Your task to perform on an android device: turn off wifi Image 0: 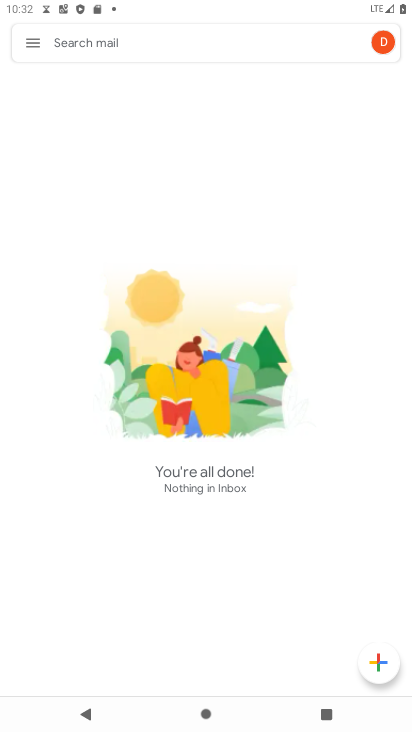
Step 0: press home button
Your task to perform on an android device: turn off wifi Image 1: 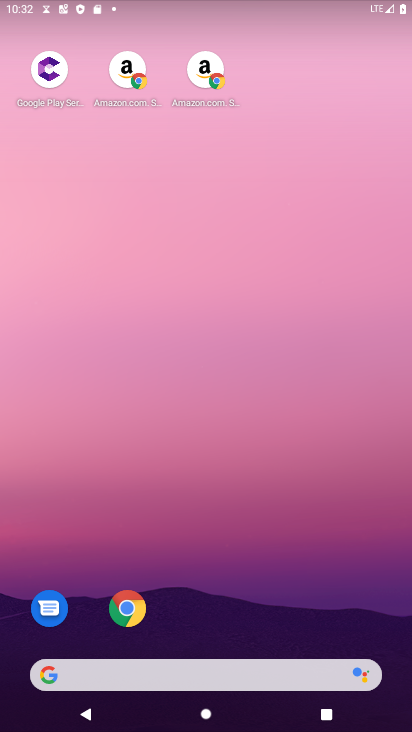
Step 1: drag from (215, 532) to (193, 12)
Your task to perform on an android device: turn off wifi Image 2: 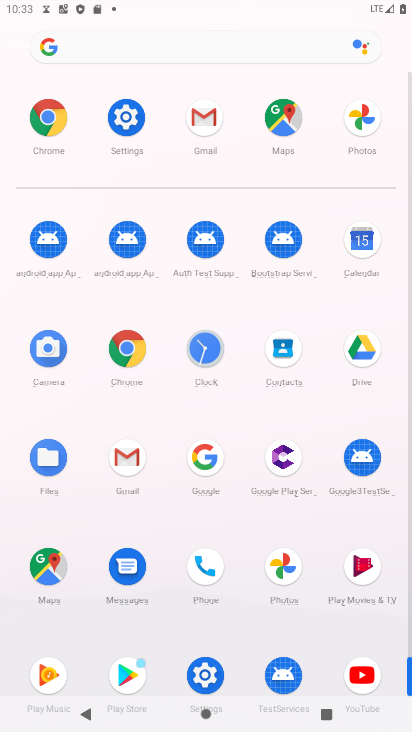
Step 2: click (122, 248)
Your task to perform on an android device: turn off wifi Image 3: 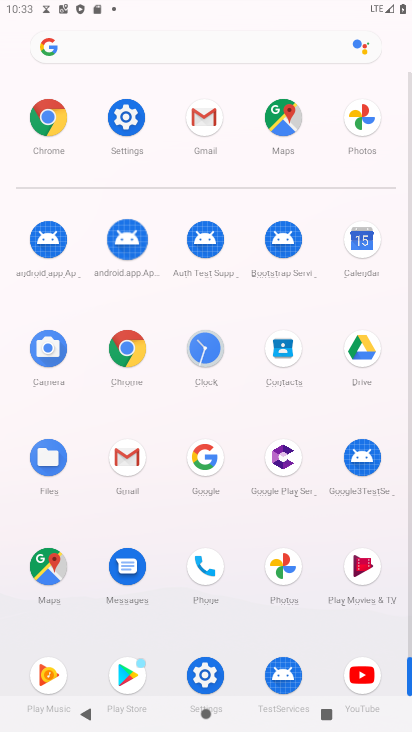
Step 3: click (126, 127)
Your task to perform on an android device: turn off wifi Image 4: 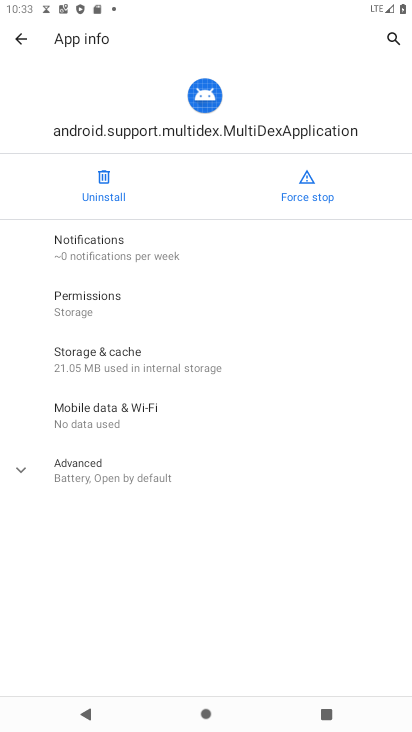
Step 4: click (33, 35)
Your task to perform on an android device: turn off wifi Image 5: 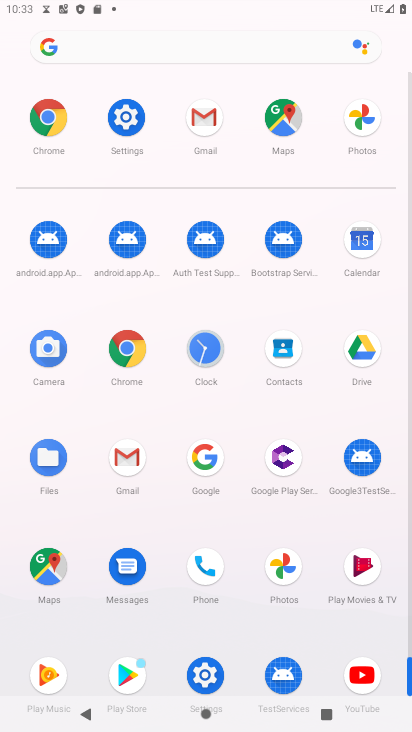
Step 5: click (124, 123)
Your task to perform on an android device: turn off wifi Image 6: 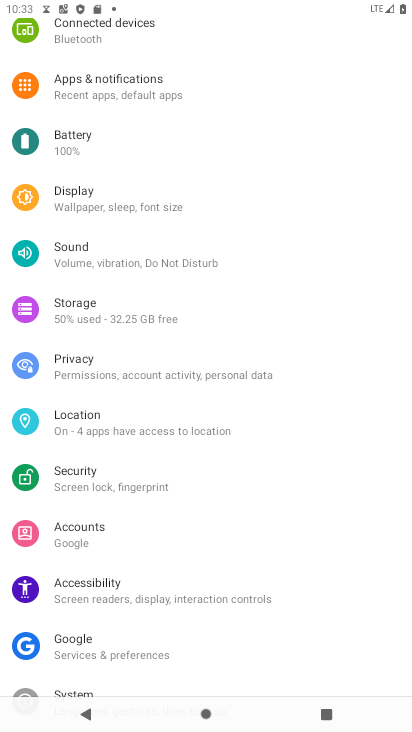
Step 6: drag from (116, 162) to (111, 572)
Your task to perform on an android device: turn off wifi Image 7: 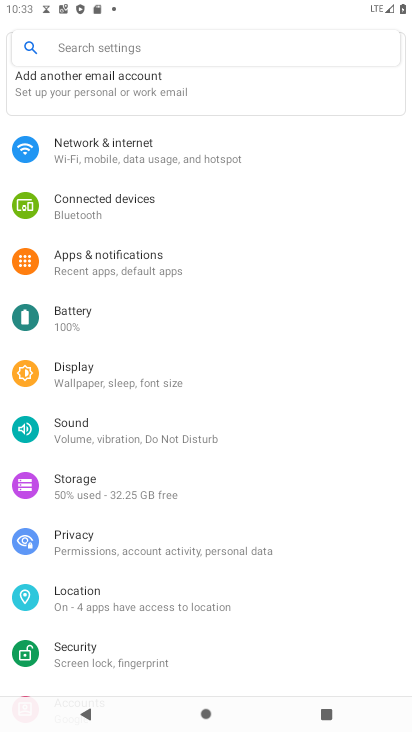
Step 7: click (96, 159)
Your task to perform on an android device: turn off wifi Image 8: 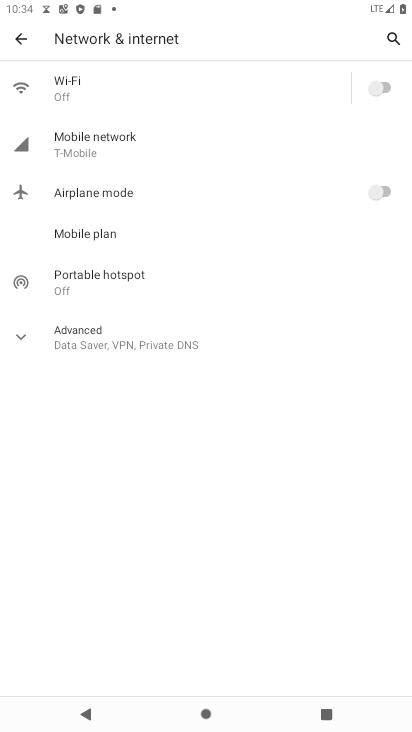
Step 8: task complete